Your task to perform on an android device: Open location settings Image 0: 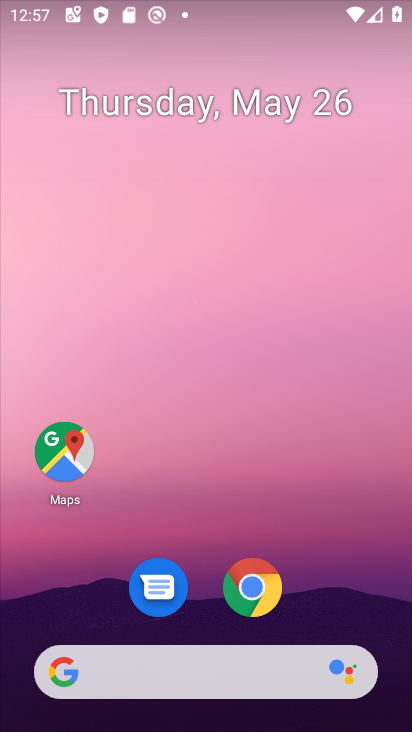
Step 0: drag from (374, 607) to (367, 156)
Your task to perform on an android device: Open location settings Image 1: 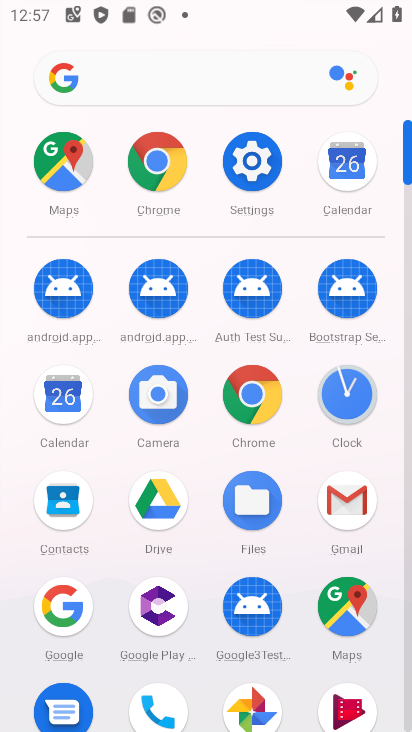
Step 1: click (259, 163)
Your task to perform on an android device: Open location settings Image 2: 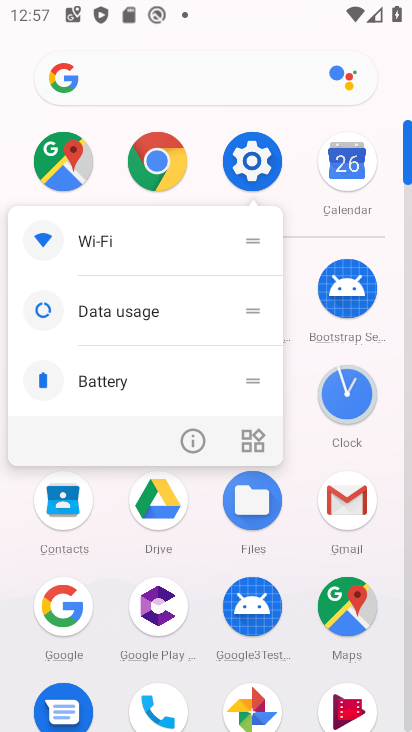
Step 2: click (259, 163)
Your task to perform on an android device: Open location settings Image 3: 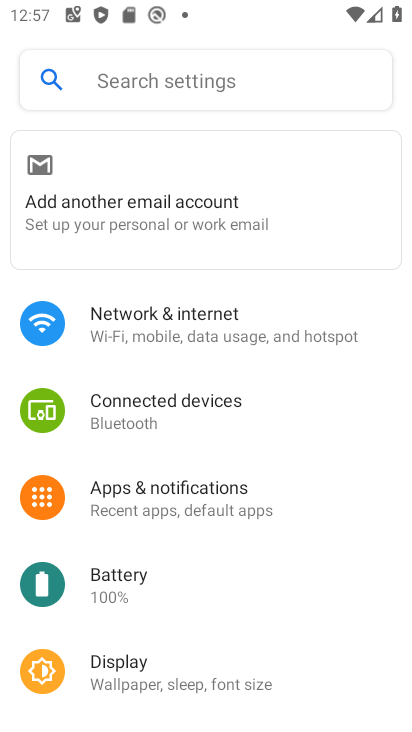
Step 3: drag from (345, 551) to (344, 356)
Your task to perform on an android device: Open location settings Image 4: 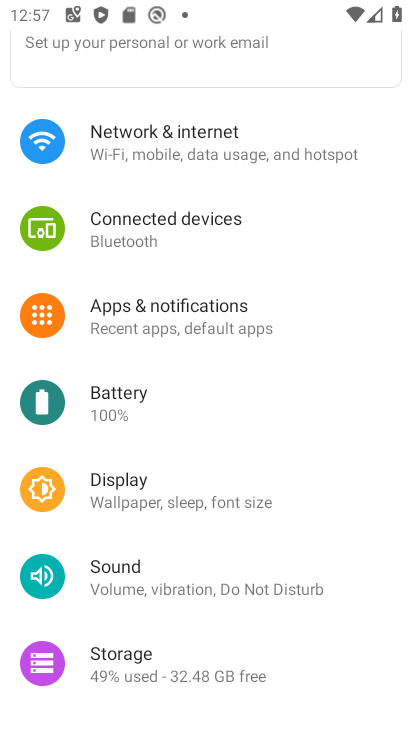
Step 4: drag from (356, 608) to (353, 473)
Your task to perform on an android device: Open location settings Image 5: 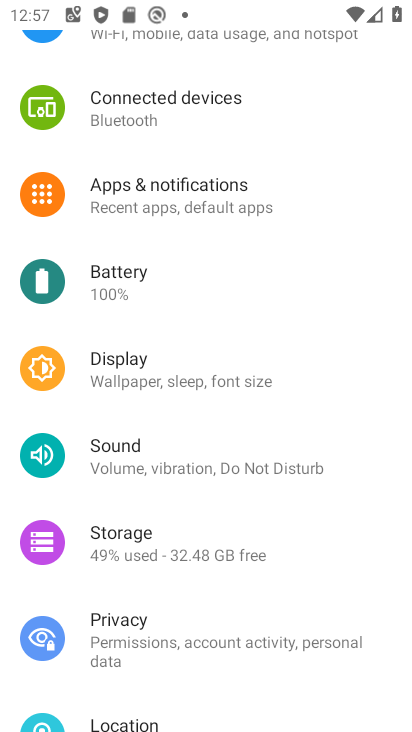
Step 5: drag from (354, 622) to (358, 475)
Your task to perform on an android device: Open location settings Image 6: 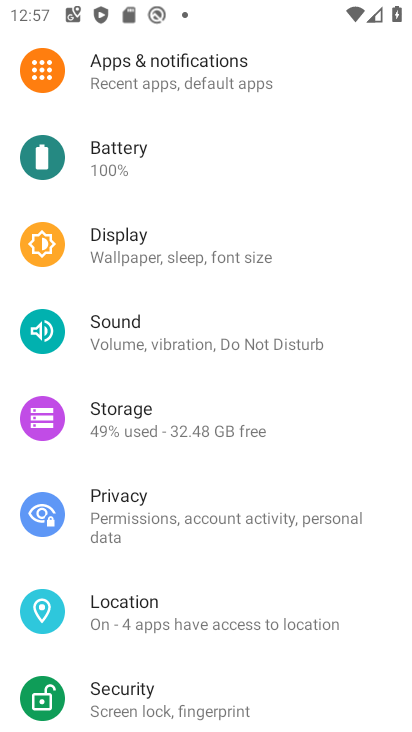
Step 6: drag from (366, 651) to (355, 494)
Your task to perform on an android device: Open location settings Image 7: 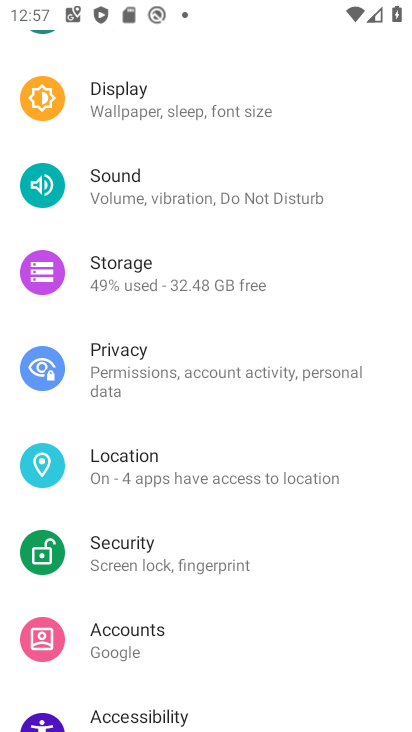
Step 7: drag from (357, 626) to (345, 456)
Your task to perform on an android device: Open location settings Image 8: 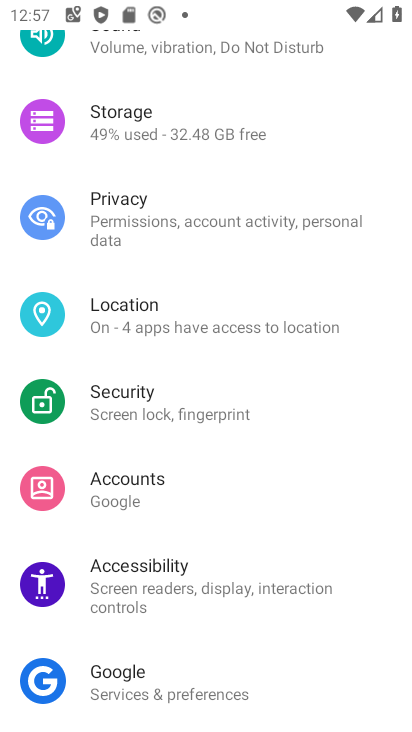
Step 8: drag from (367, 663) to (353, 495)
Your task to perform on an android device: Open location settings Image 9: 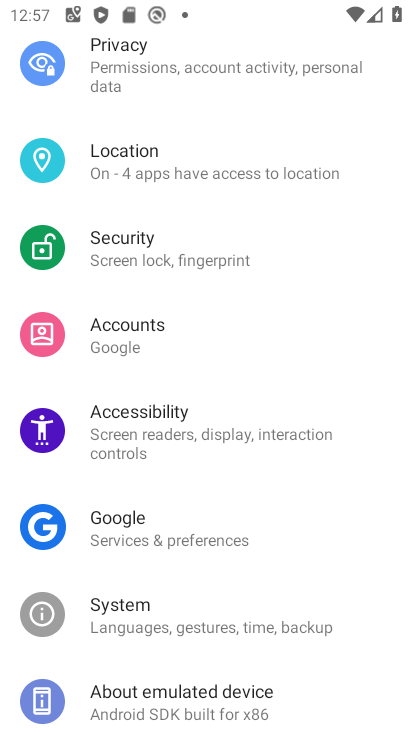
Step 9: drag from (370, 643) to (359, 487)
Your task to perform on an android device: Open location settings Image 10: 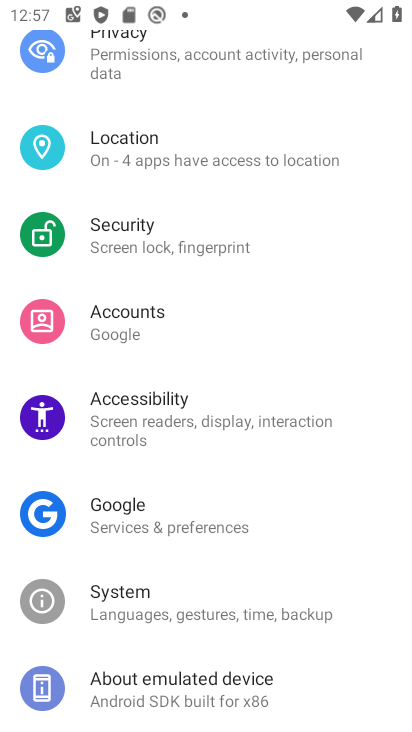
Step 10: drag from (376, 670) to (361, 502)
Your task to perform on an android device: Open location settings Image 11: 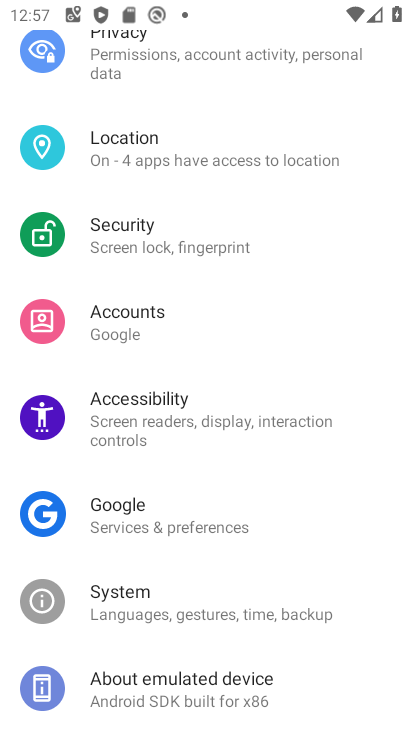
Step 11: drag from (360, 285) to (365, 424)
Your task to perform on an android device: Open location settings Image 12: 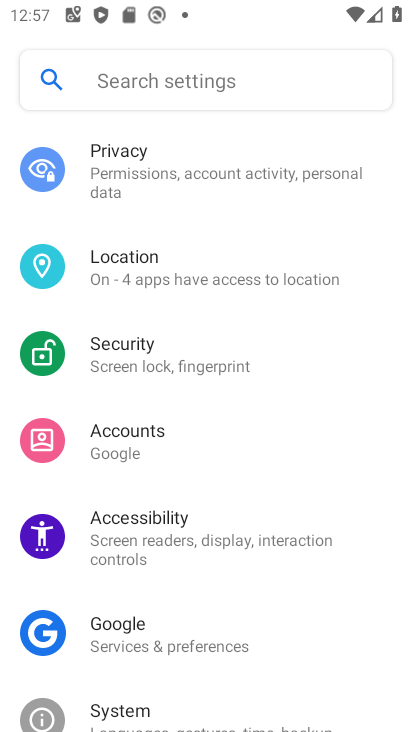
Step 12: drag from (378, 250) to (376, 380)
Your task to perform on an android device: Open location settings Image 13: 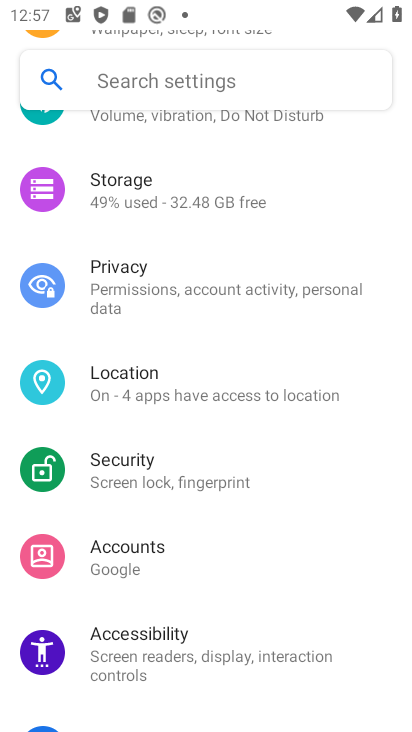
Step 13: click (253, 400)
Your task to perform on an android device: Open location settings Image 14: 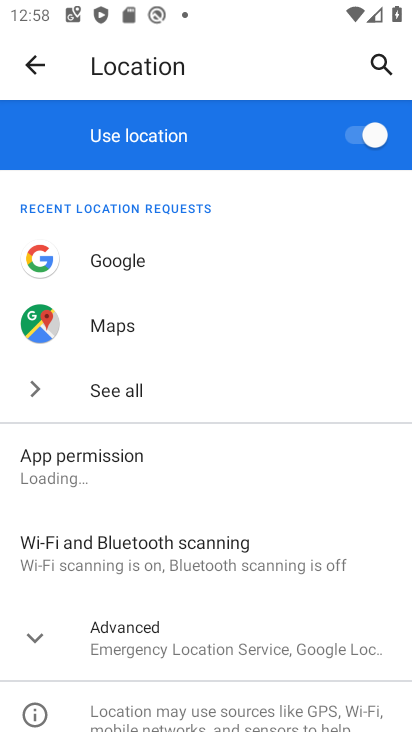
Step 14: task complete